Your task to perform on an android device: Open the calendar and show me this week's events Image 0: 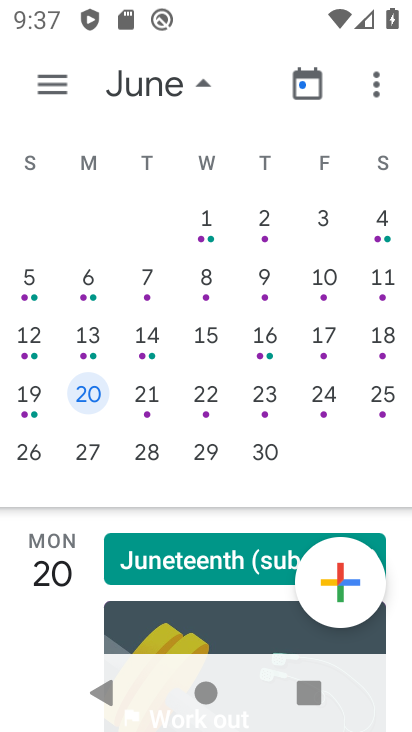
Step 0: press home button
Your task to perform on an android device: Open the calendar and show me this week's events Image 1: 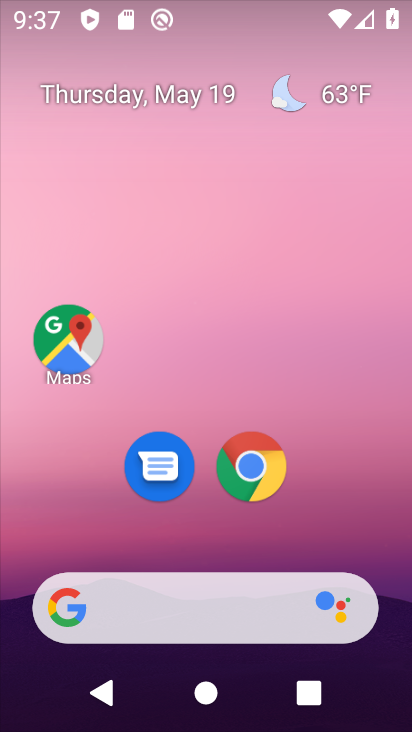
Step 1: drag from (380, 626) to (315, 90)
Your task to perform on an android device: Open the calendar and show me this week's events Image 2: 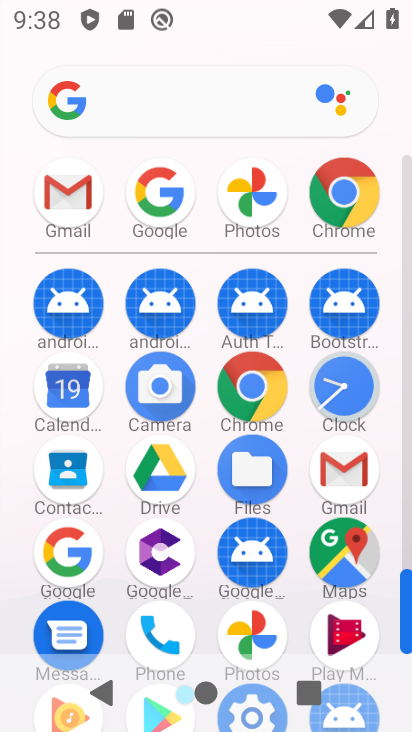
Step 2: click (81, 407)
Your task to perform on an android device: Open the calendar and show me this week's events Image 3: 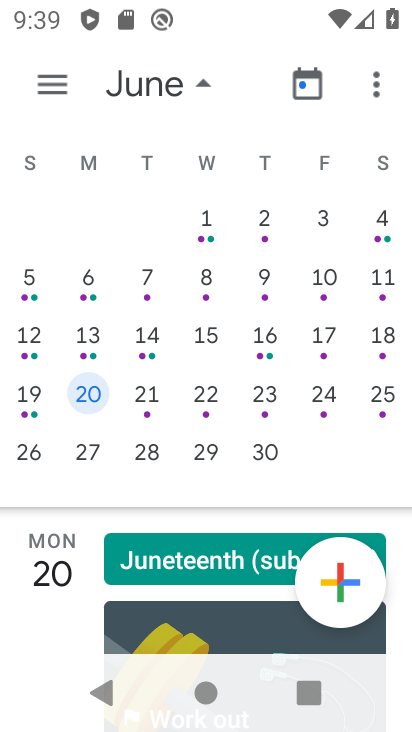
Step 3: task complete